Your task to perform on an android device: What's the latest video from GameSpot eSports? Image 0: 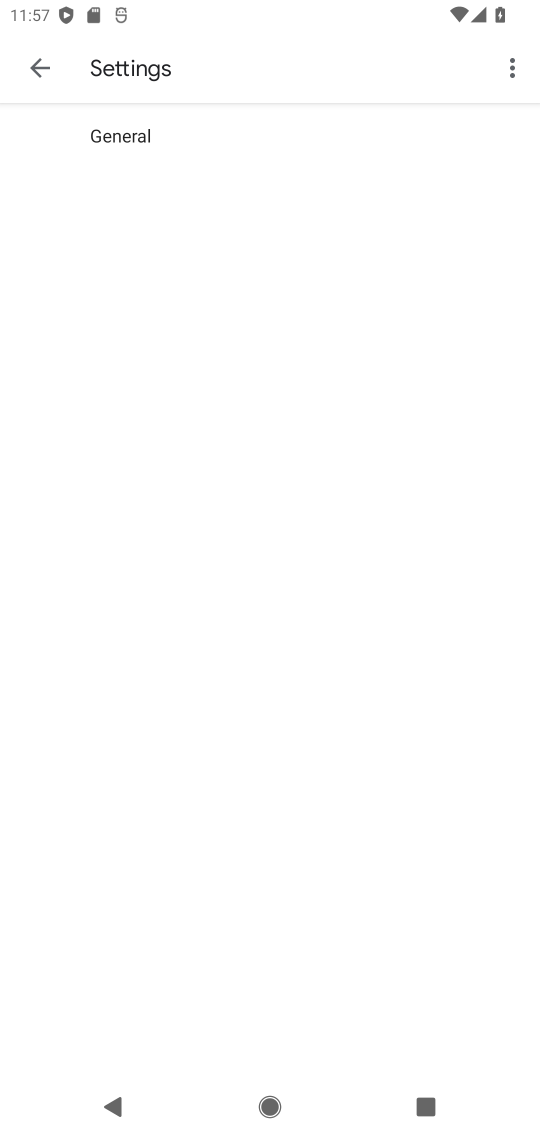
Step 0: press home button
Your task to perform on an android device: What's the latest video from GameSpot eSports? Image 1: 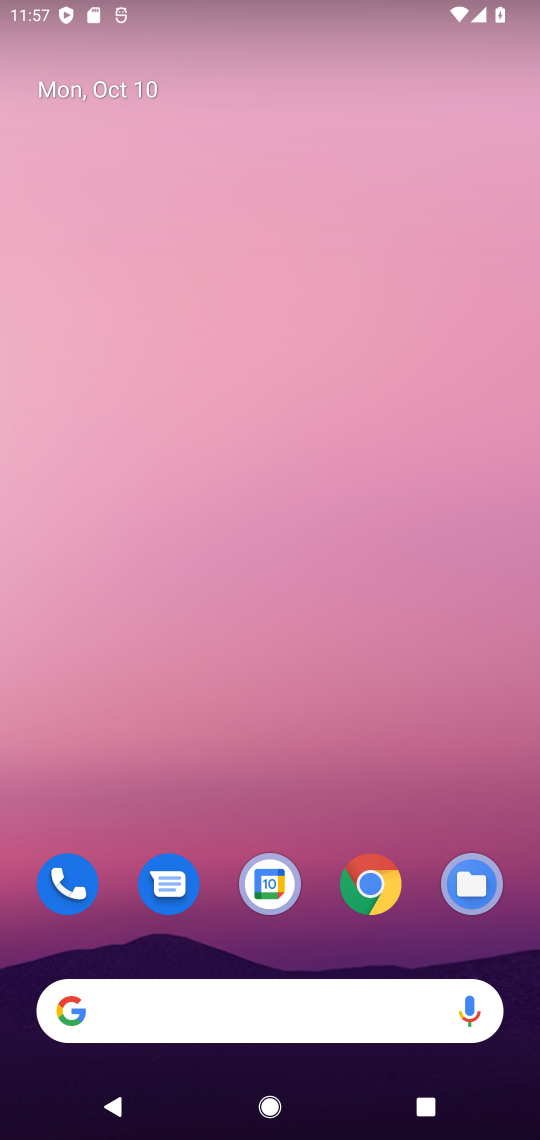
Step 1: click (388, 877)
Your task to perform on an android device: What's the latest video from GameSpot eSports? Image 2: 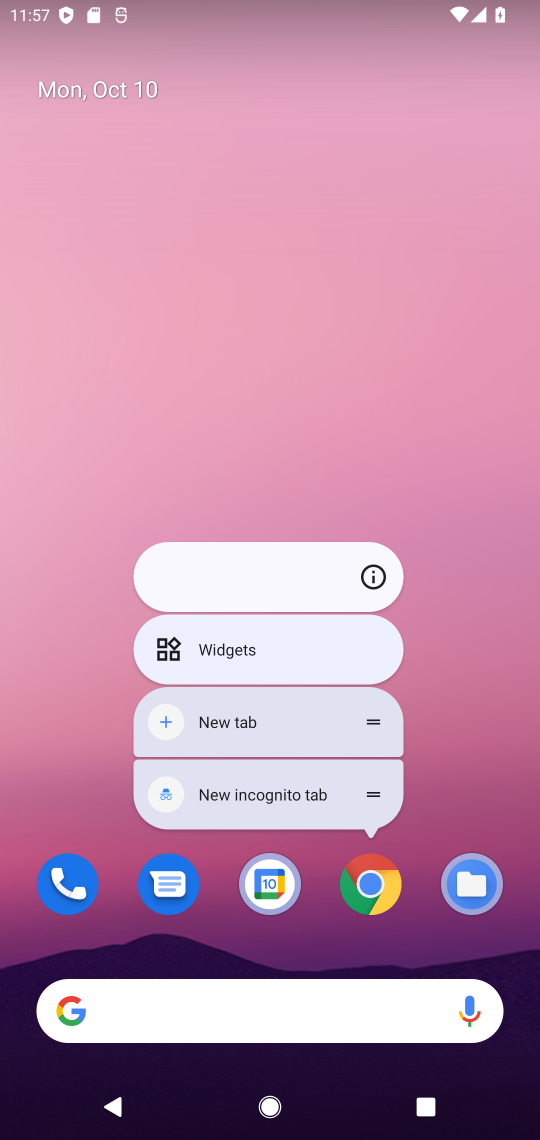
Step 2: click (374, 896)
Your task to perform on an android device: What's the latest video from GameSpot eSports? Image 3: 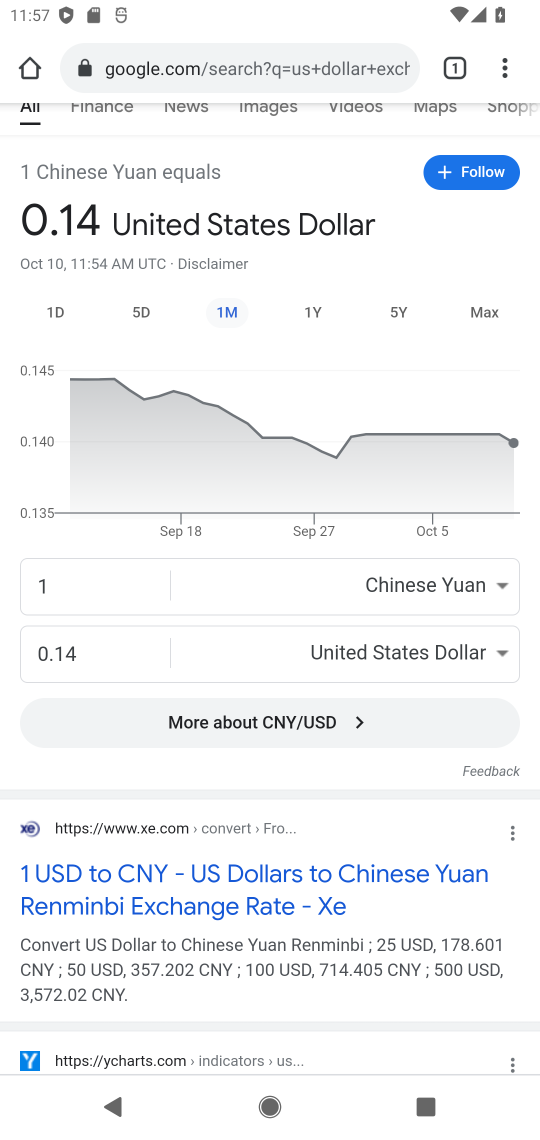
Step 3: click (251, 65)
Your task to perform on an android device: What's the latest video from GameSpot eSports? Image 4: 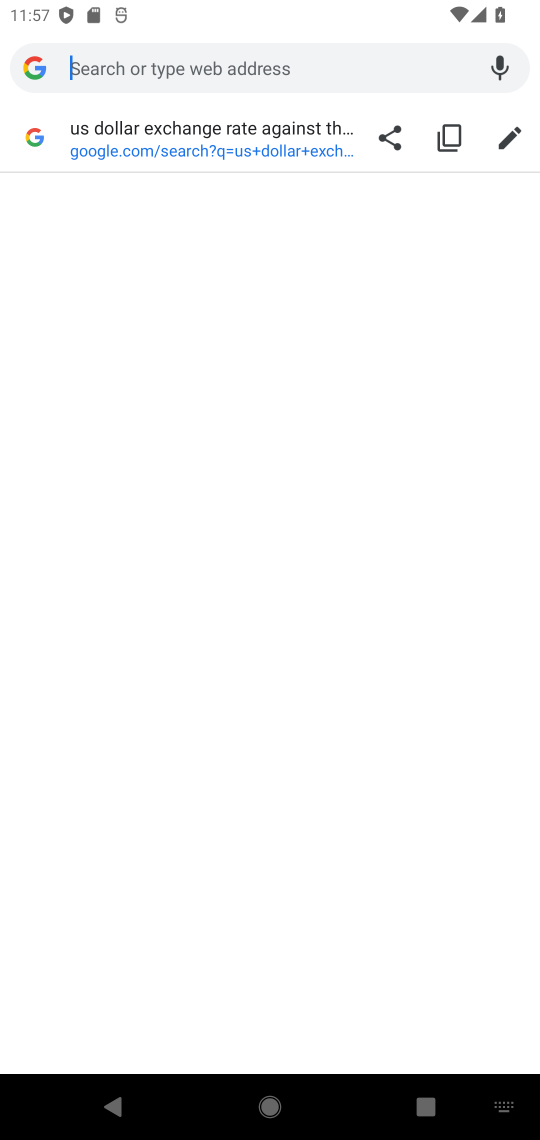
Step 4: type "latest video from GameSpot eSports"
Your task to perform on an android device: What's the latest video from GameSpot eSports? Image 5: 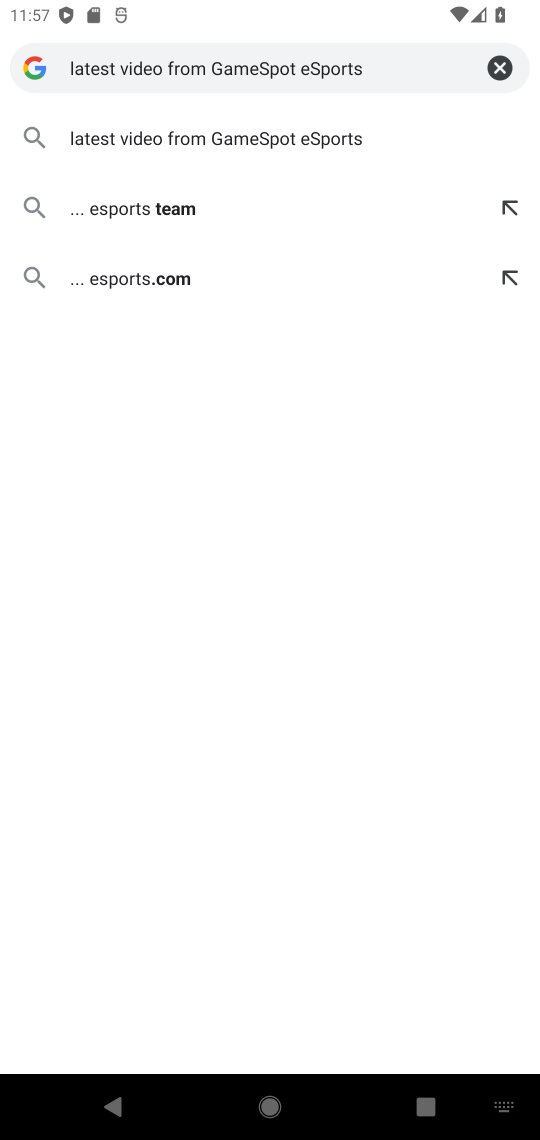
Step 5: press enter
Your task to perform on an android device: What's the latest video from GameSpot eSports? Image 6: 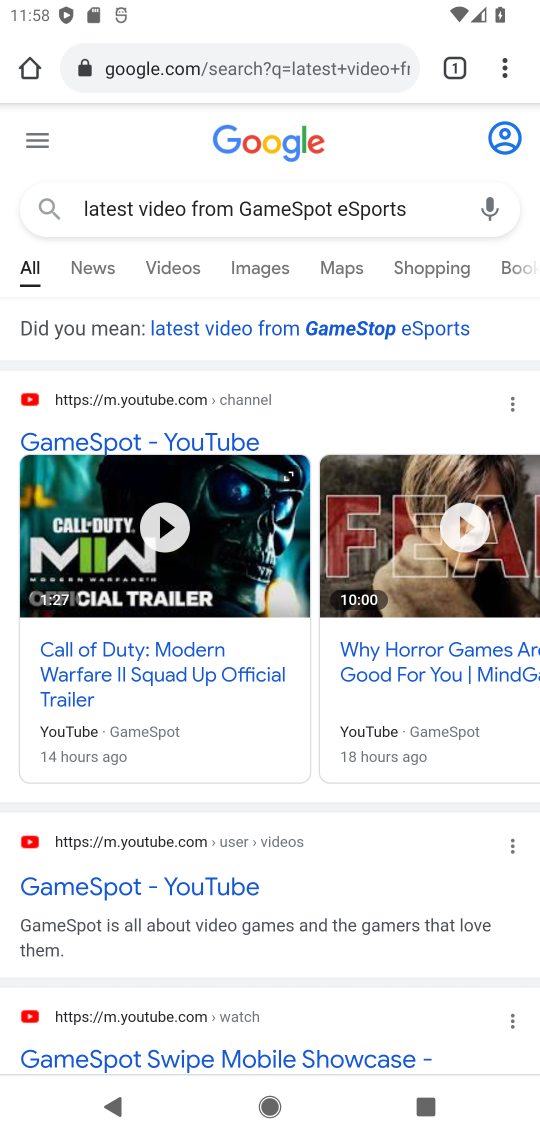
Step 6: click (150, 893)
Your task to perform on an android device: What's the latest video from GameSpot eSports? Image 7: 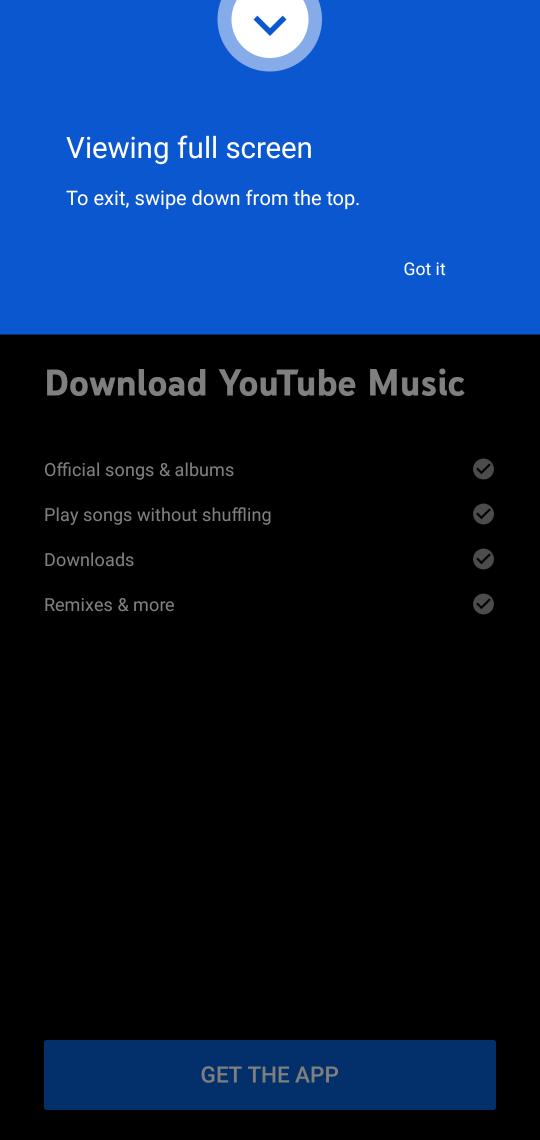
Step 7: click (405, 264)
Your task to perform on an android device: What's the latest video from GameSpot eSports? Image 8: 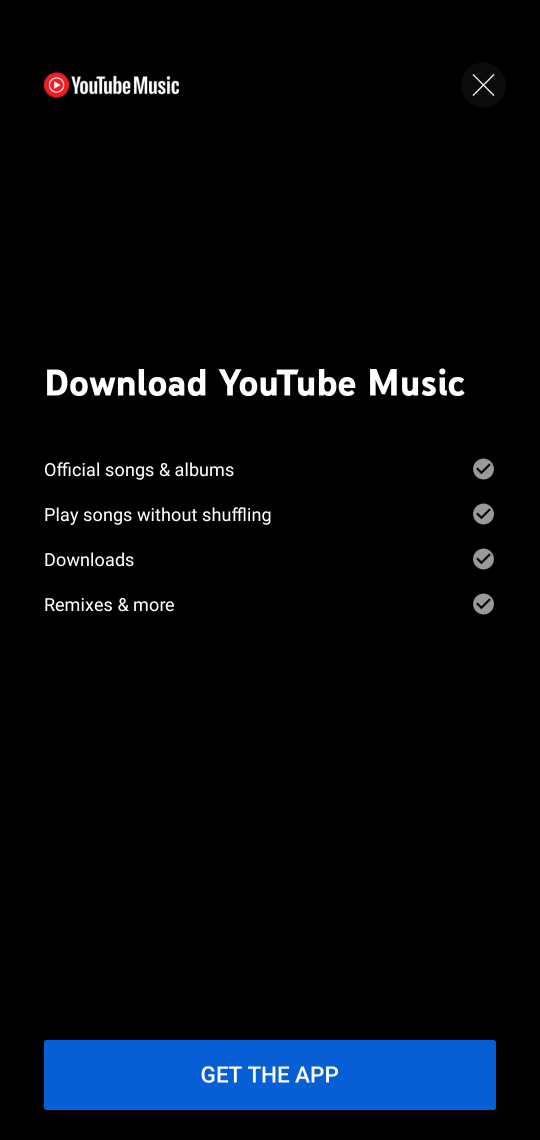
Step 8: click (477, 83)
Your task to perform on an android device: What's the latest video from GameSpot eSports? Image 9: 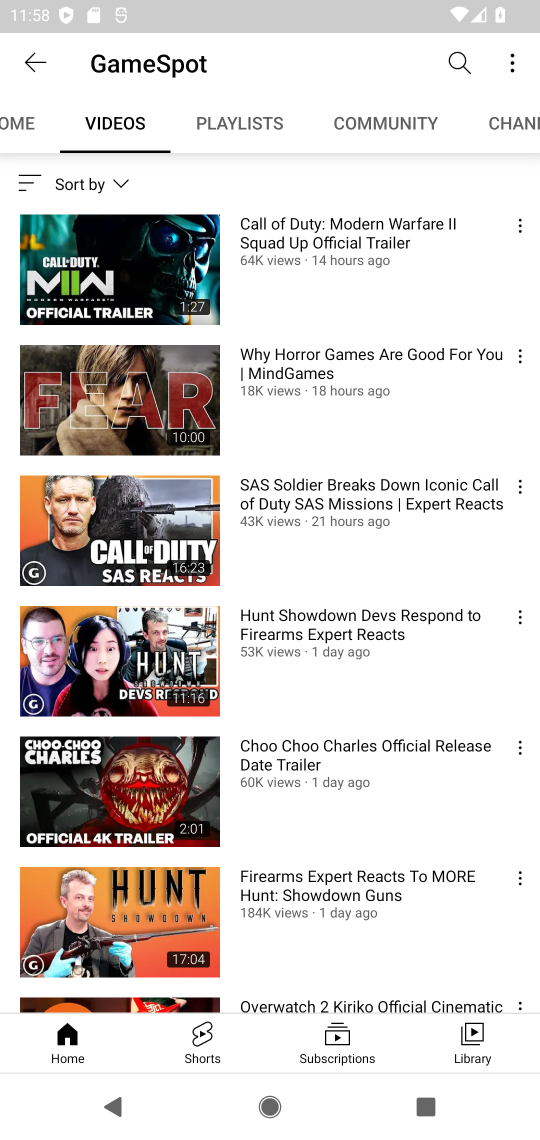
Step 9: click (384, 288)
Your task to perform on an android device: What's the latest video from GameSpot eSports? Image 10: 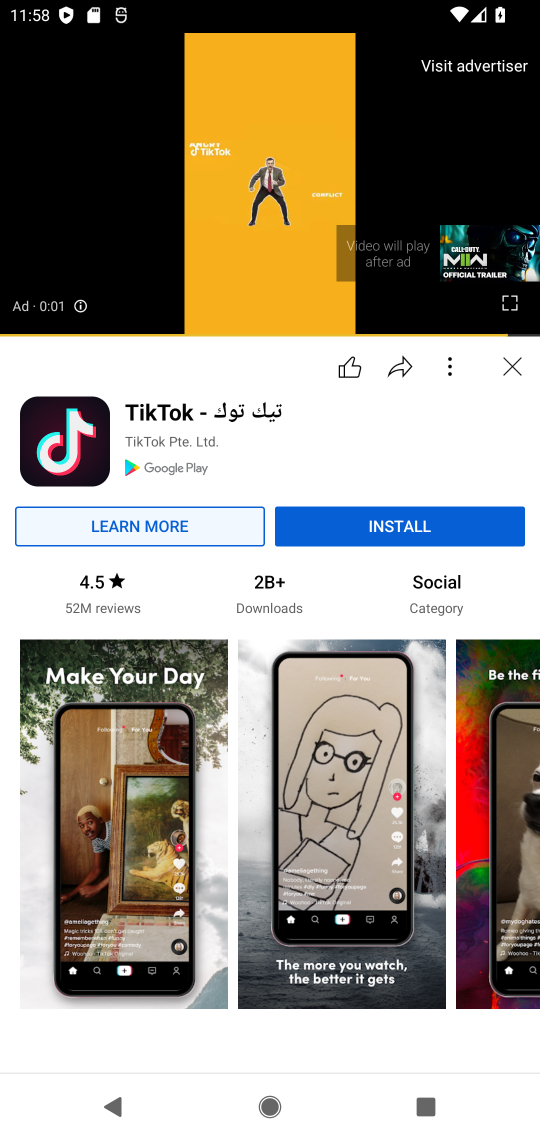
Step 10: click (503, 368)
Your task to perform on an android device: What's the latest video from GameSpot eSports? Image 11: 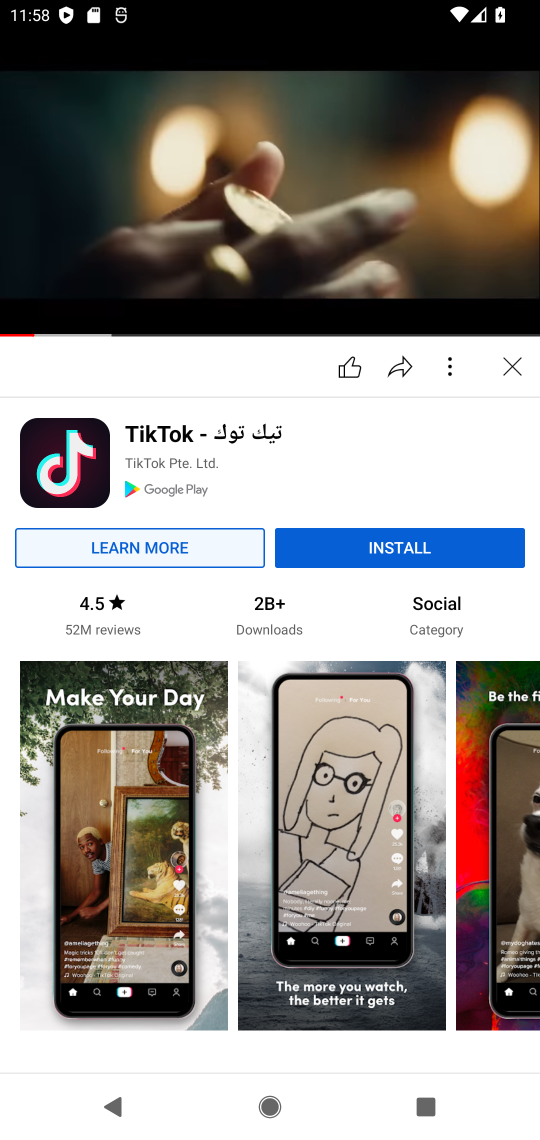
Step 11: click (515, 372)
Your task to perform on an android device: What's the latest video from GameSpot eSports? Image 12: 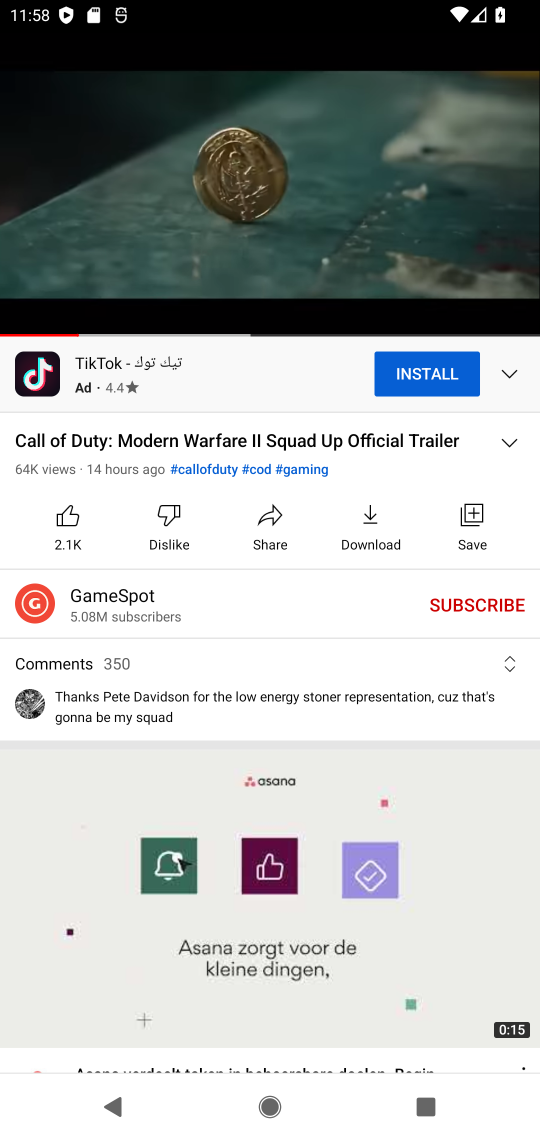
Step 12: task complete